Your task to perform on an android device: star an email in the gmail app Image 0: 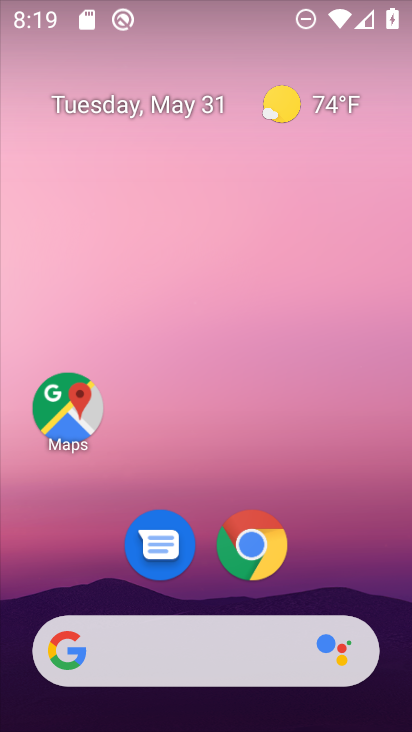
Step 0: drag from (257, 378) to (197, 0)
Your task to perform on an android device: star an email in the gmail app Image 1: 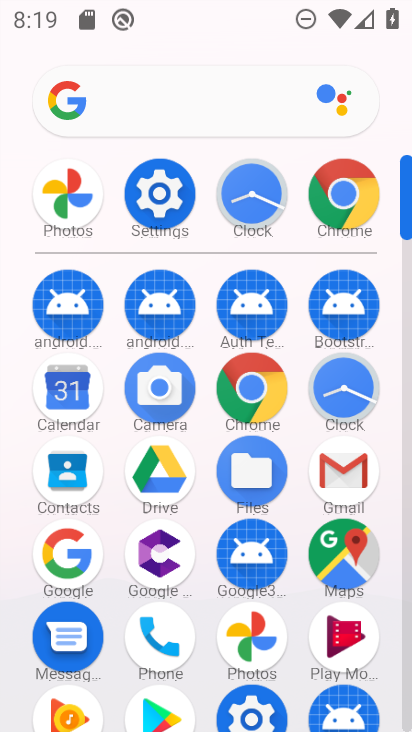
Step 1: drag from (18, 612) to (47, 231)
Your task to perform on an android device: star an email in the gmail app Image 2: 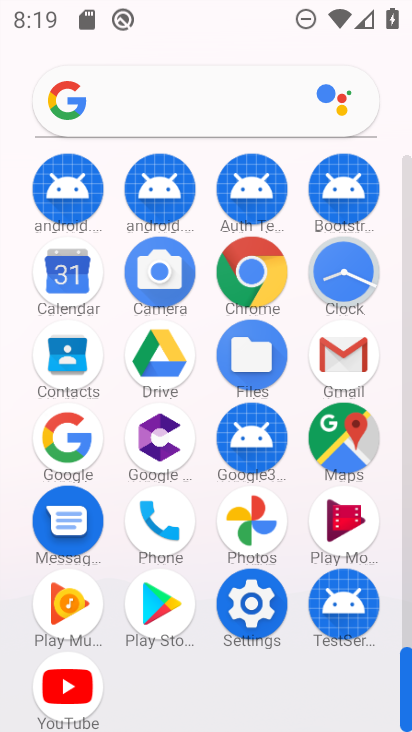
Step 2: click (342, 348)
Your task to perform on an android device: star an email in the gmail app Image 3: 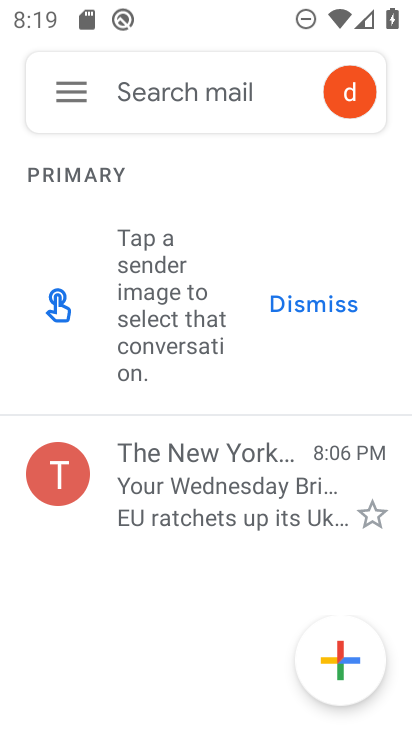
Step 3: click (75, 92)
Your task to perform on an android device: star an email in the gmail app Image 4: 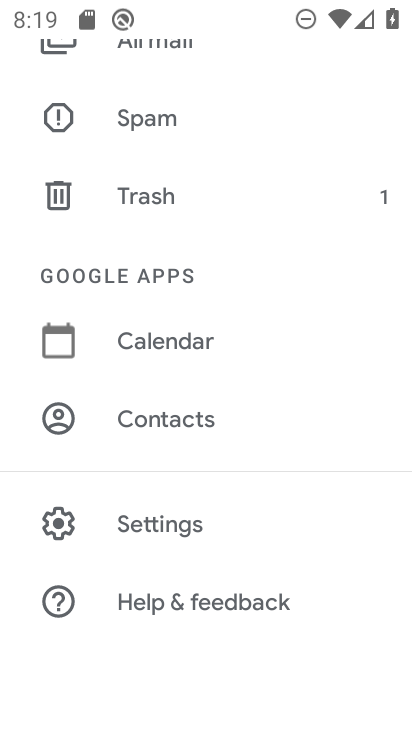
Step 4: drag from (241, 180) to (276, 607)
Your task to perform on an android device: star an email in the gmail app Image 5: 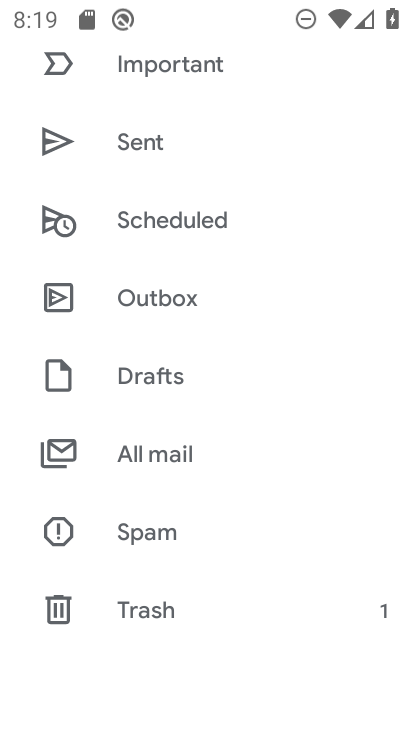
Step 5: drag from (222, 135) to (241, 559)
Your task to perform on an android device: star an email in the gmail app Image 6: 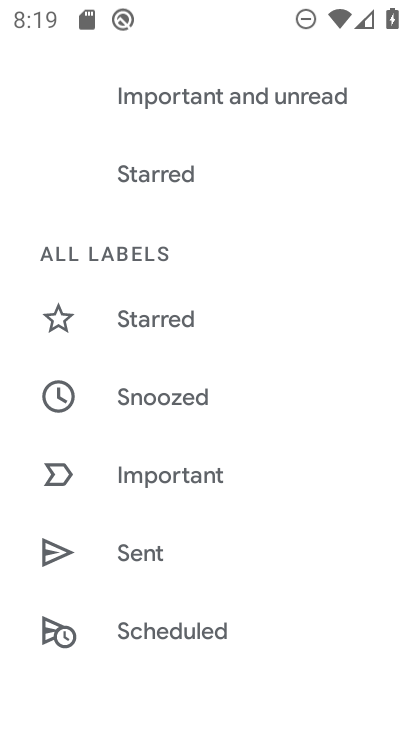
Step 6: click (181, 315)
Your task to perform on an android device: star an email in the gmail app Image 7: 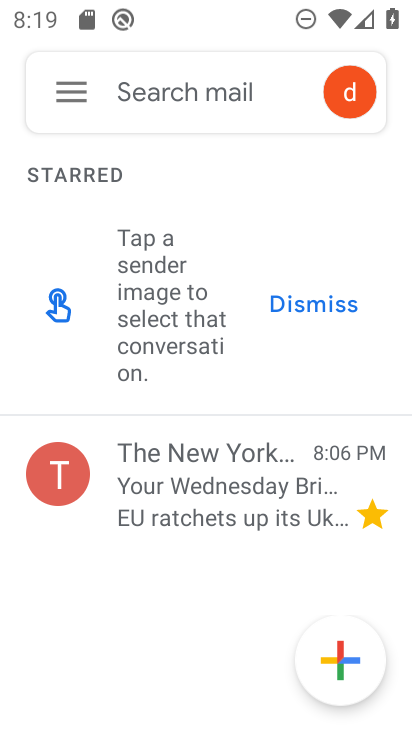
Step 7: task complete